Your task to perform on an android device: Open wifi settings Image 0: 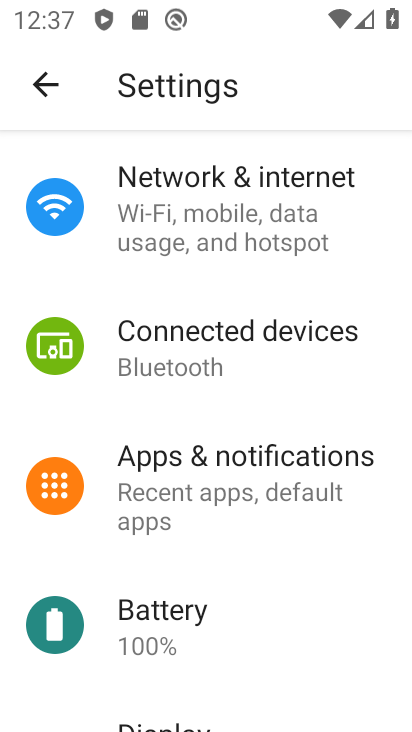
Step 0: click (153, 179)
Your task to perform on an android device: Open wifi settings Image 1: 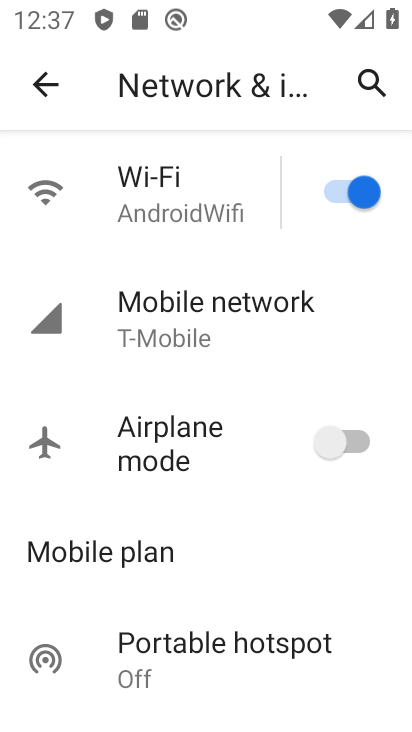
Step 1: click (119, 192)
Your task to perform on an android device: Open wifi settings Image 2: 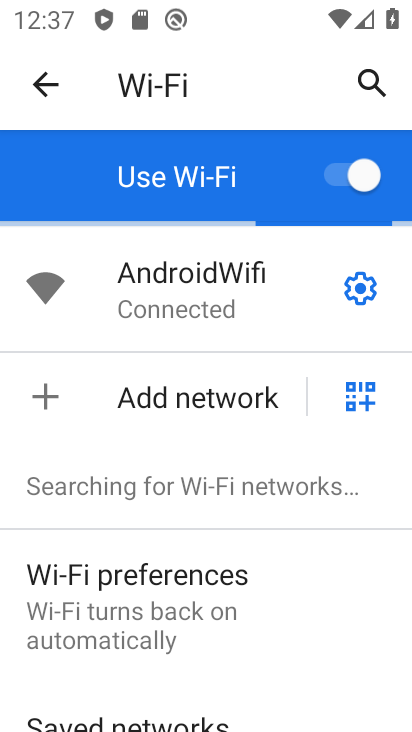
Step 2: drag from (244, 600) to (260, 322)
Your task to perform on an android device: Open wifi settings Image 3: 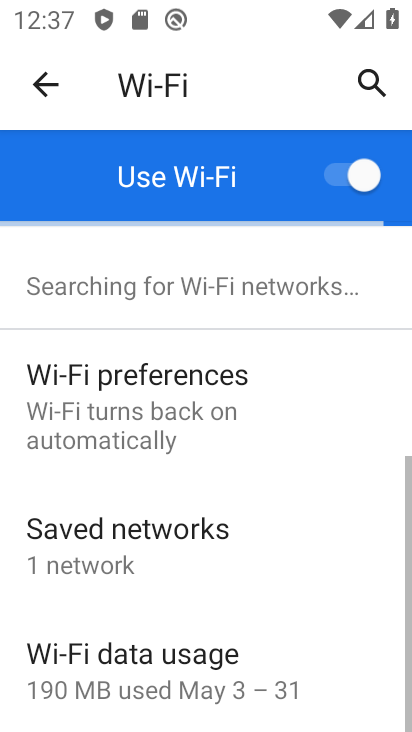
Step 3: drag from (260, 628) to (256, 332)
Your task to perform on an android device: Open wifi settings Image 4: 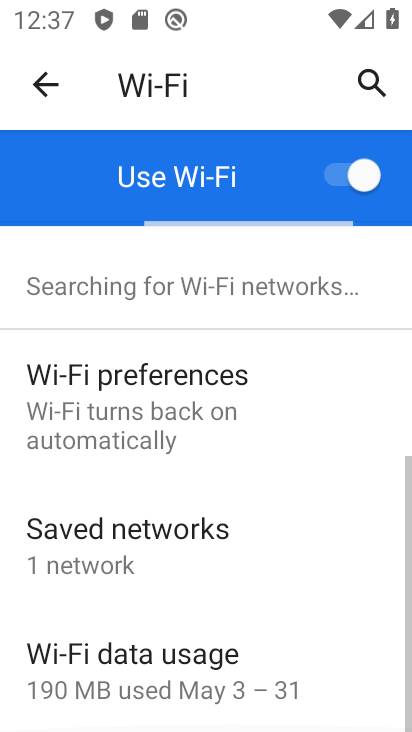
Step 4: drag from (256, 332) to (243, 642)
Your task to perform on an android device: Open wifi settings Image 5: 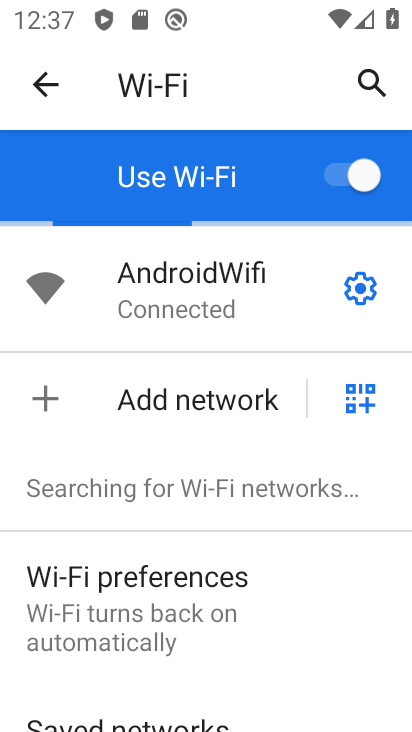
Step 5: click (361, 282)
Your task to perform on an android device: Open wifi settings Image 6: 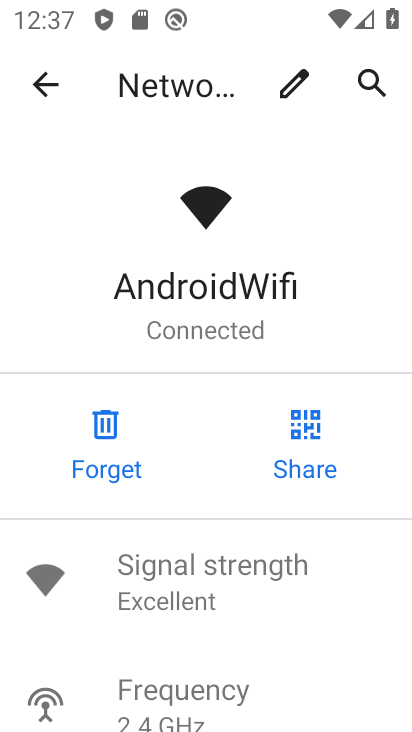
Step 6: drag from (233, 626) to (235, 287)
Your task to perform on an android device: Open wifi settings Image 7: 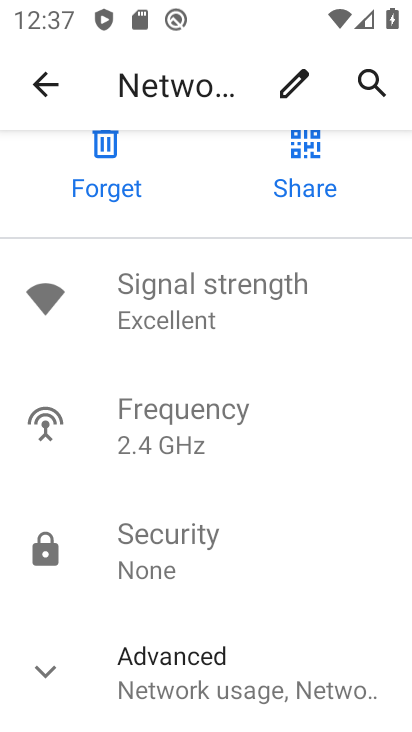
Step 7: click (41, 668)
Your task to perform on an android device: Open wifi settings Image 8: 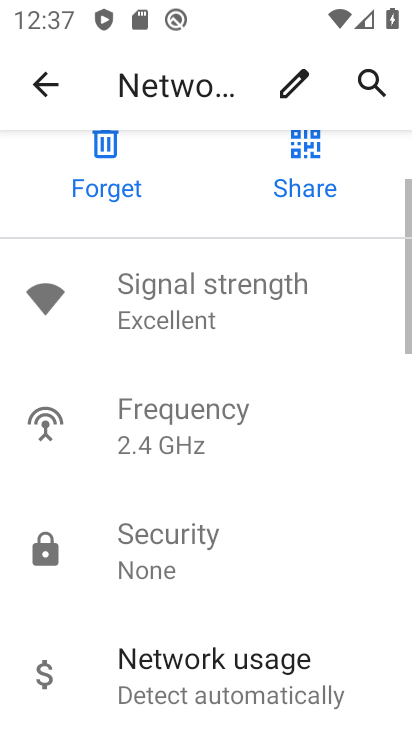
Step 8: task complete